Your task to perform on an android device: move a message to another label in the gmail app Image 0: 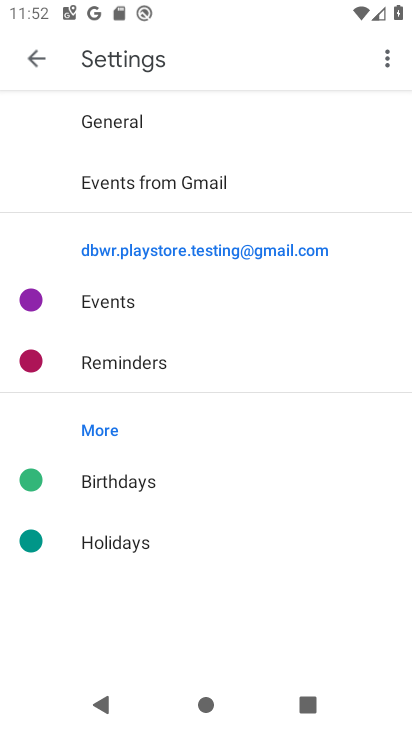
Step 0: press home button
Your task to perform on an android device: move a message to another label in the gmail app Image 1: 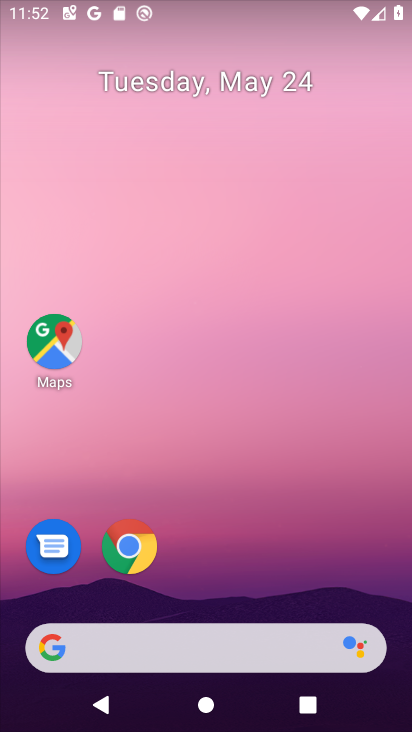
Step 1: drag from (208, 571) to (230, 27)
Your task to perform on an android device: move a message to another label in the gmail app Image 2: 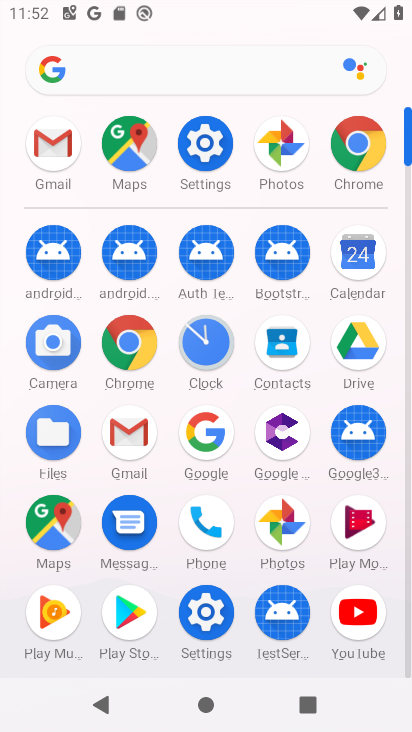
Step 2: click (126, 450)
Your task to perform on an android device: move a message to another label in the gmail app Image 3: 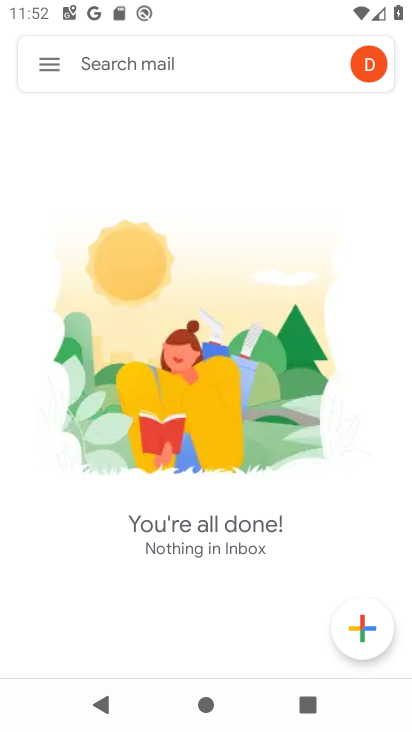
Step 3: click (47, 58)
Your task to perform on an android device: move a message to another label in the gmail app Image 4: 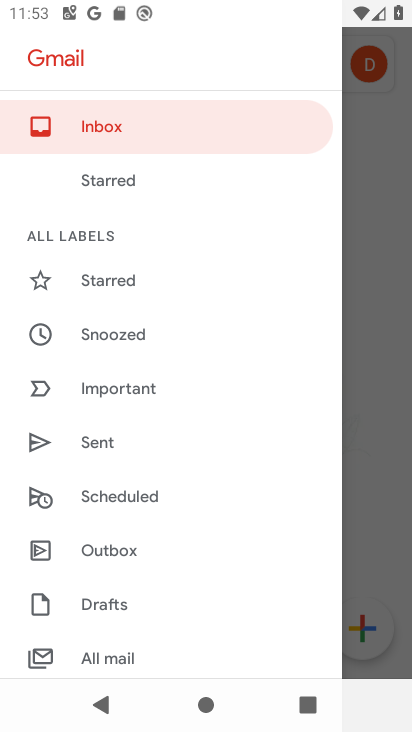
Step 4: click (113, 654)
Your task to perform on an android device: move a message to another label in the gmail app Image 5: 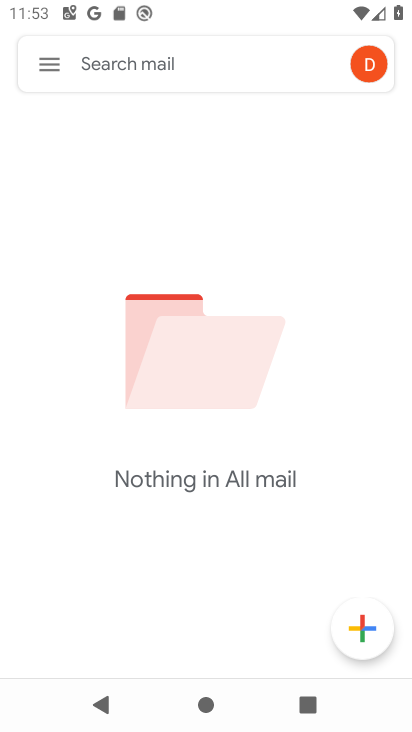
Step 5: task complete